Your task to perform on an android device: Open Wikipedia Image 0: 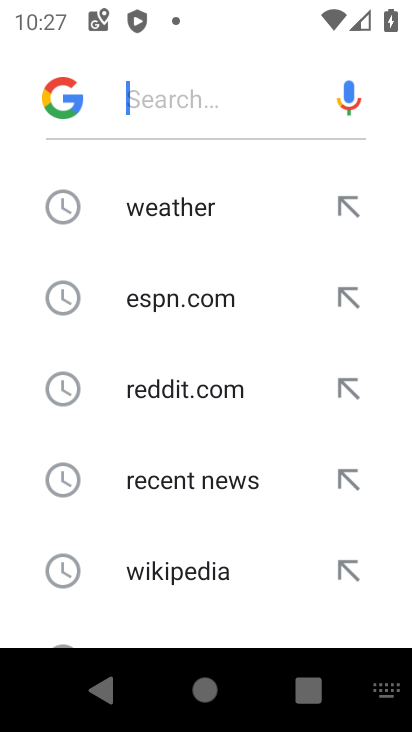
Step 0: click (182, 580)
Your task to perform on an android device: Open Wikipedia Image 1: 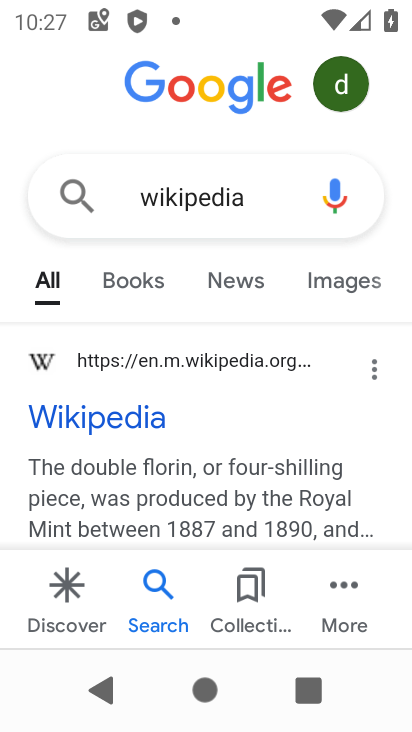
Step 1: click (105, 419)
Your task to perform on an android device: Open Wikipedia Image 2: 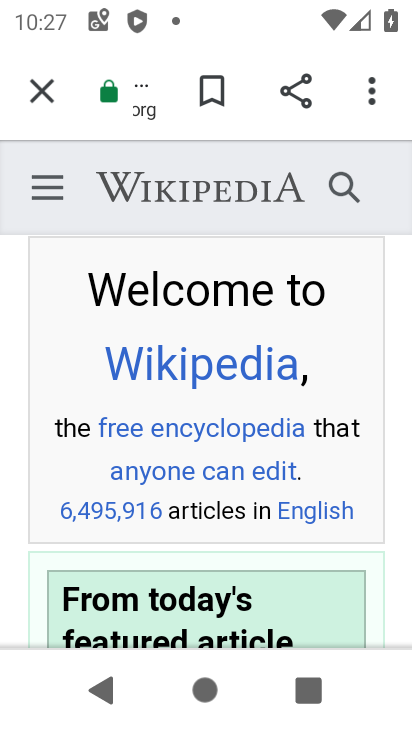
Step 2: task complete